Your task to perform on an android device: check battery use Image 0: 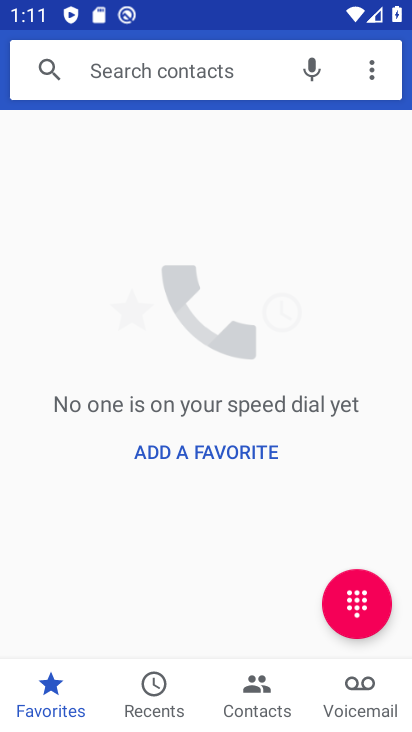
Step 0: press home button
Your task to perform on an android device: check battery use Image 1: 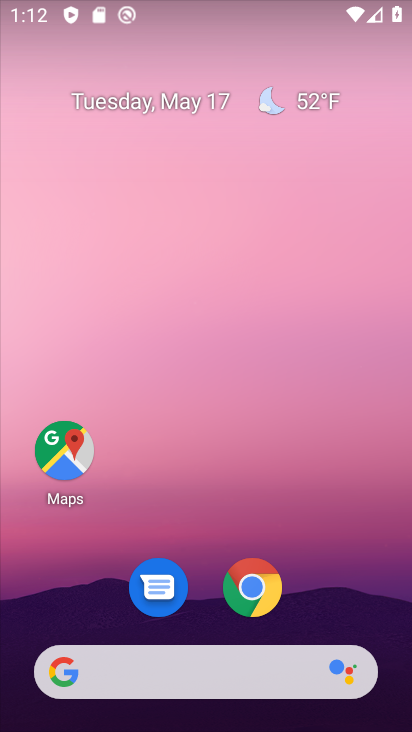
Step 1: drag from (341, 575) to (318, 33)
Your task to perform on an android device: check battery use Image 2: 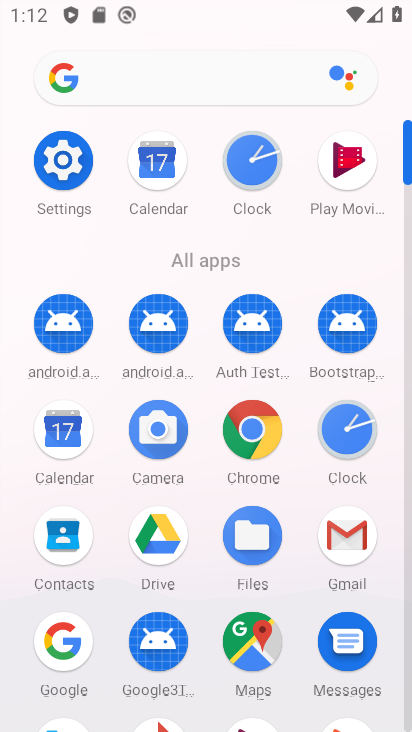
Step 2: click (70, 182)
Your task to perform on an android device: check battery use Image 3: 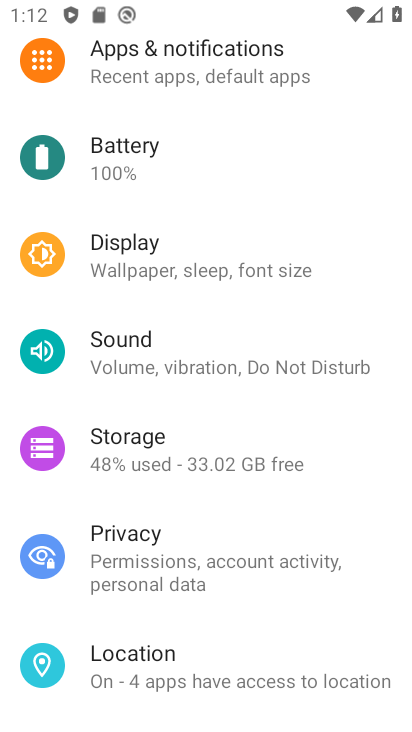
Step 3: drag from (201, 547) to (221, 447)
Your task to perform on an android device: check battery use Image 4: 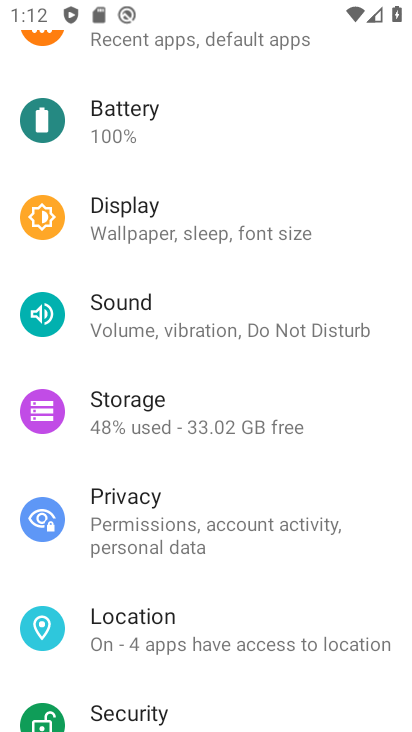
Step 4: click (193, 141)
Your task to perform on an android device: check battery use Image 5: 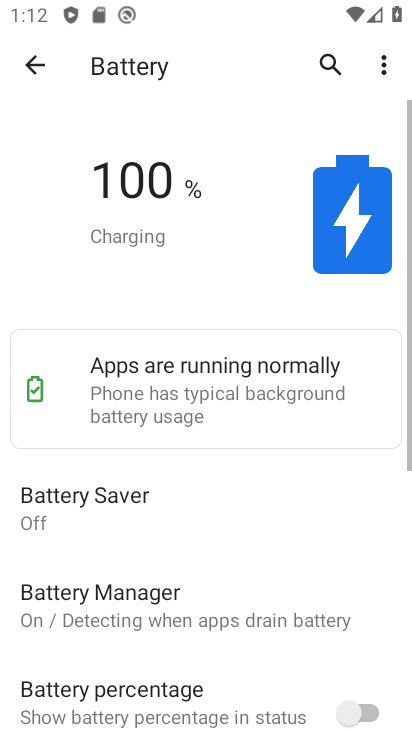
Step 5: task complete